Your task to perform on an android device: turn off picture-in-picture Image 0: 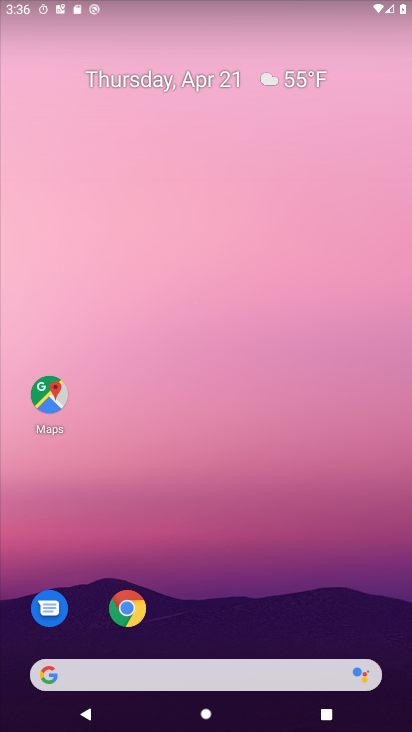
Step 0: click (141, 600)
Your task to perform on an android device: turn off picture-in-picture Image 1: 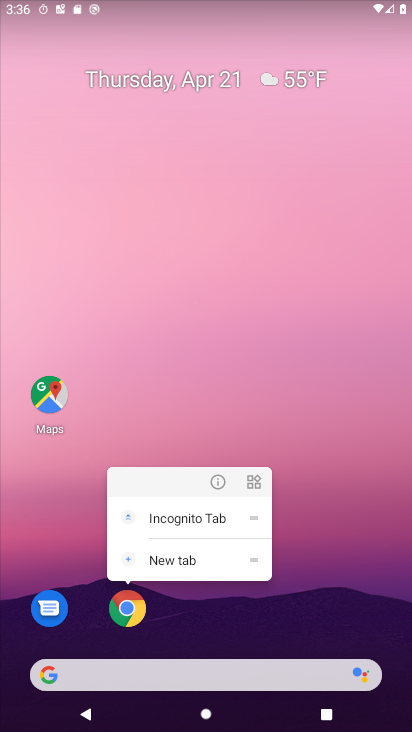
Step 1: click (219, 482)
Your task to perform on an android device: turn off picture-in-picture Image 2: 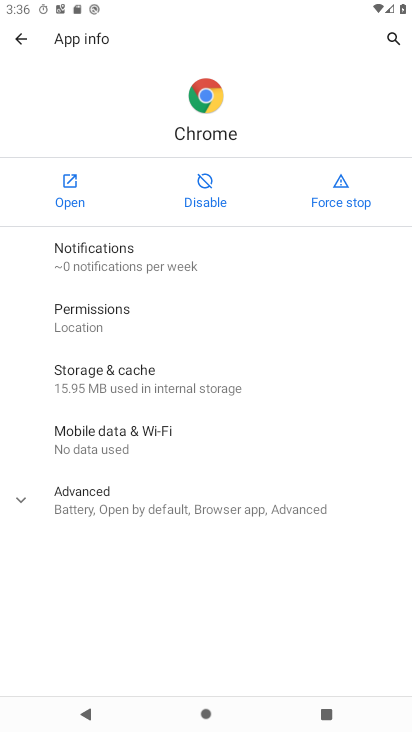
Step 2: click (125, 498)
Your task to perform on an android device: turn off picture-in-picture Image 3: 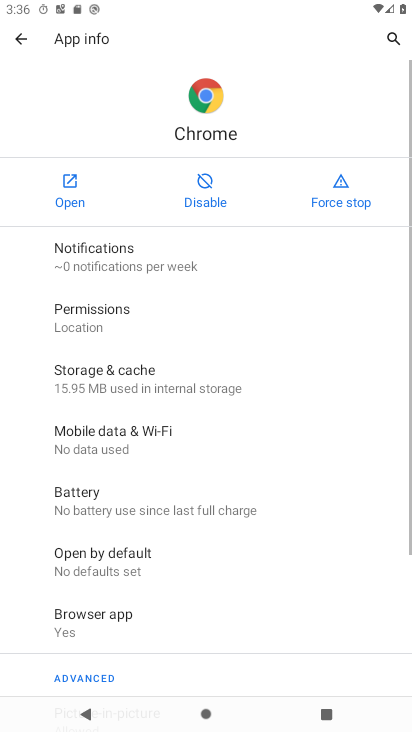
Step 3: drag from (141, 644) to (69, 126)
Your task to perform on an android device: turn off picture-in-picture Image 4: 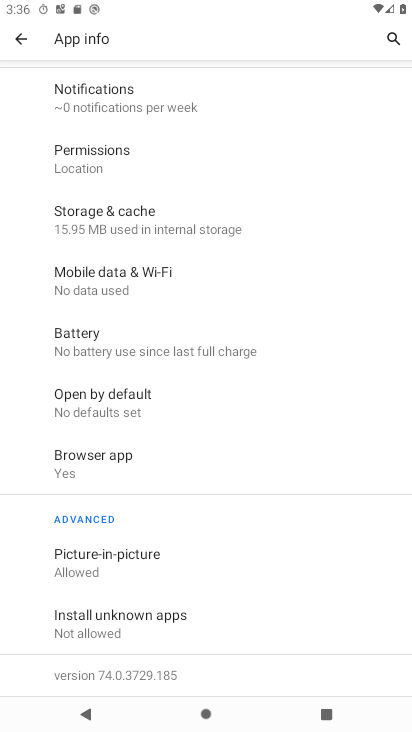
Step 4: click (107, 565)
Your task to perform on an android device: turn off picture-in-picture Image 5: 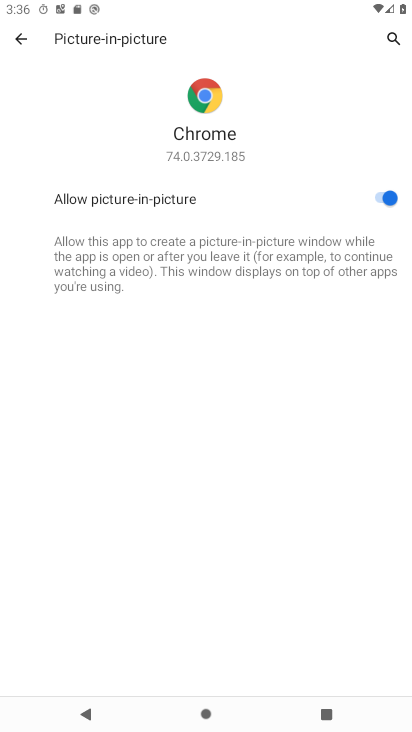
Step 5: click (400, 197)
Your task to perform on an android device: turn off picture-in-picture Image 6: 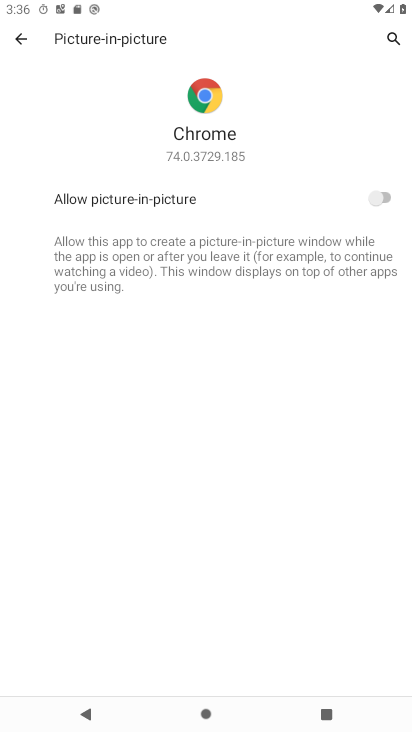
Step 6: click (358, 202)
Your task to perform on an android device: turn off picture-in-picture Image 7: 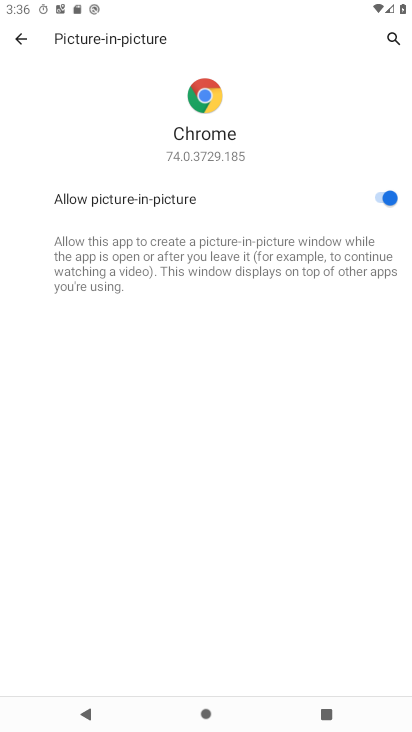
Step 7: task complete